Your task to perform on an android device: Go to accessibility settings Image 0: 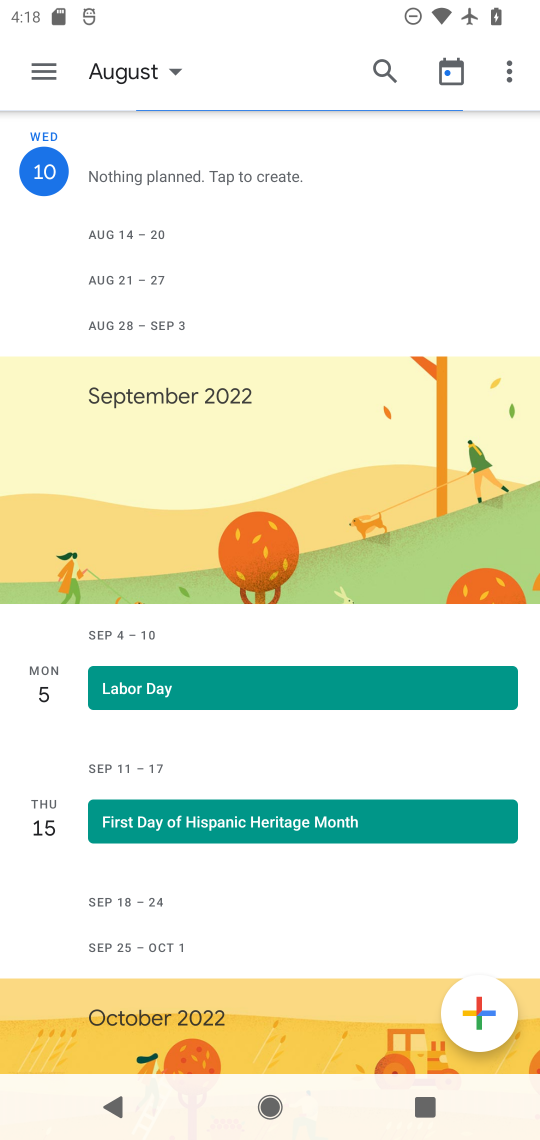
Step 0: press home button
Your task to perform on an android device: Go to accessibility settings Image 1: 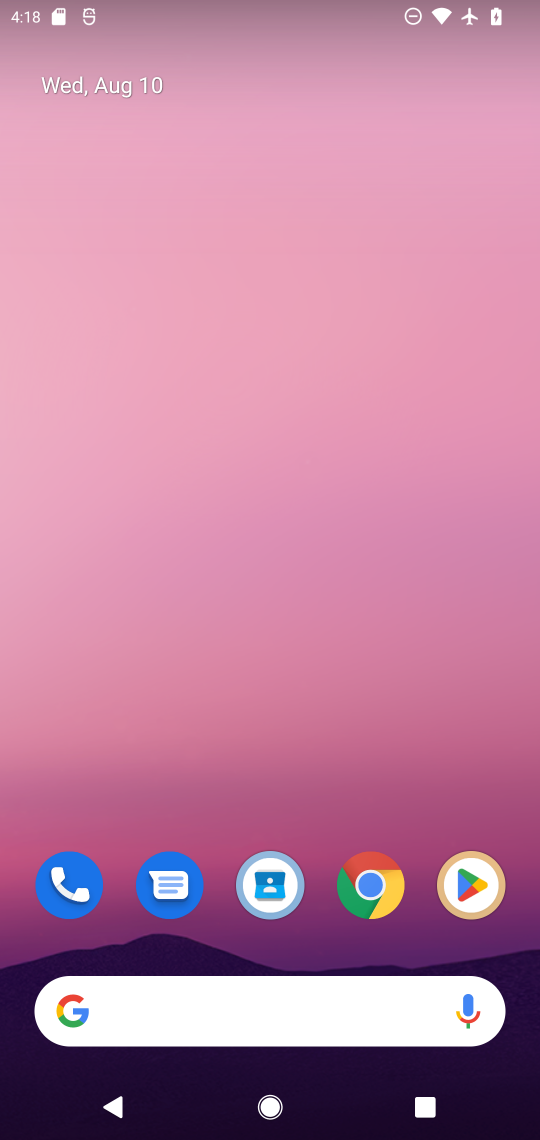
Step 1: drag from (308, 943) to (270, 272)
Your task to perform on an android device: Go to accessibility settings Image 2: 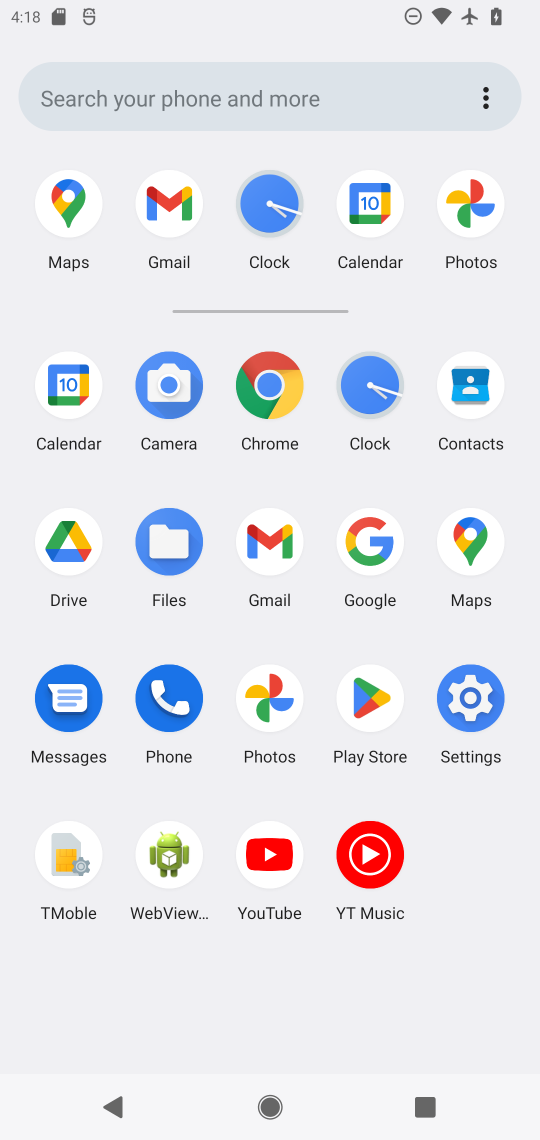
Step 2: click (473, 700)
Your task to perform on an android device: Go to accessibility settings Image 3: 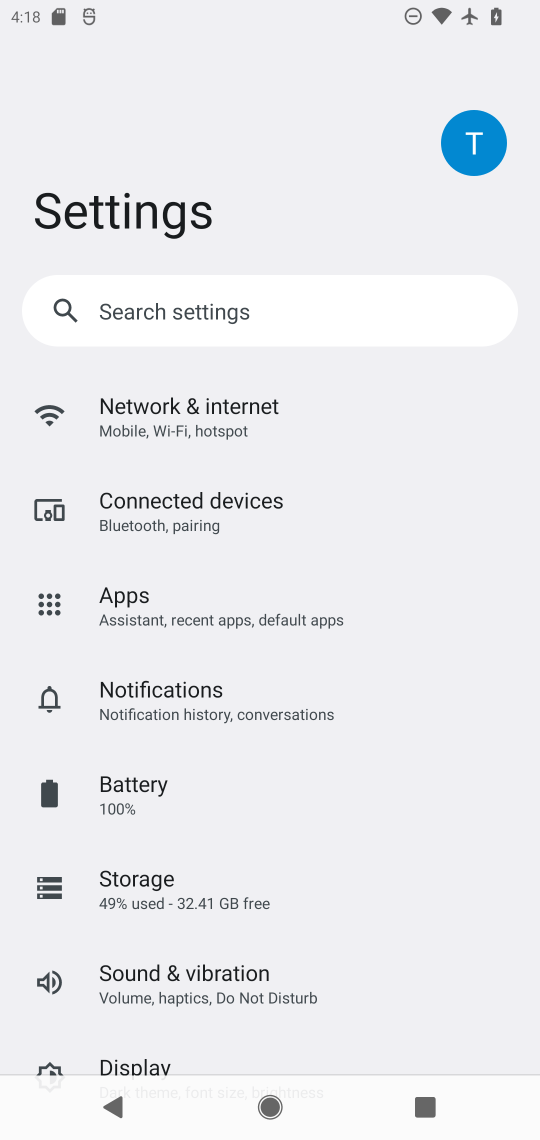
Step 3: drag from (361, 993) to (328, 384)
Your task to perform on an android device: Go to accessibility settings Image 4: 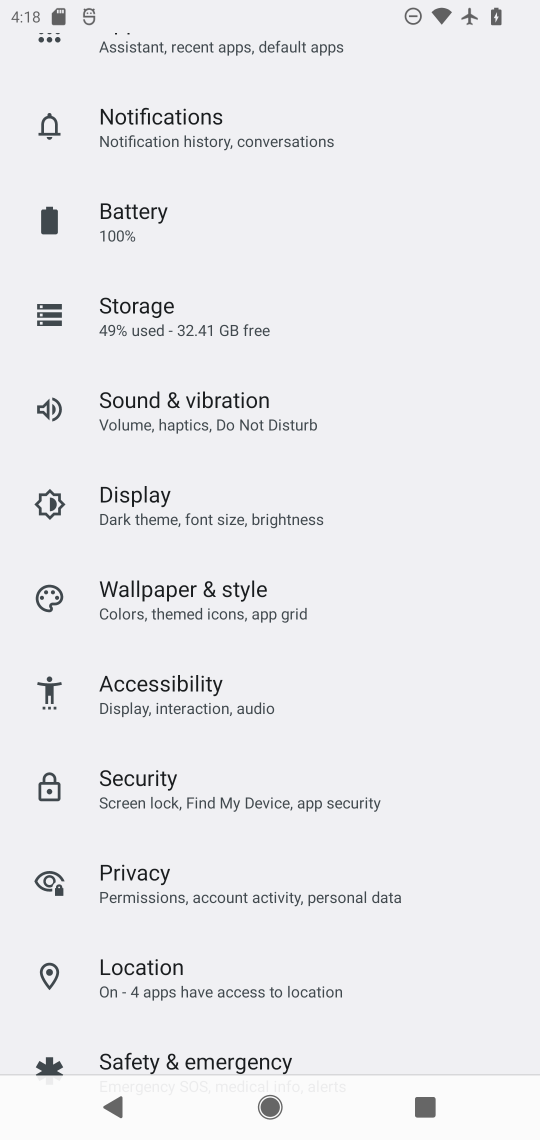
Step 4: click (171, 675)
Your task to perform on an android device: Go to accessibility settings Image 5: 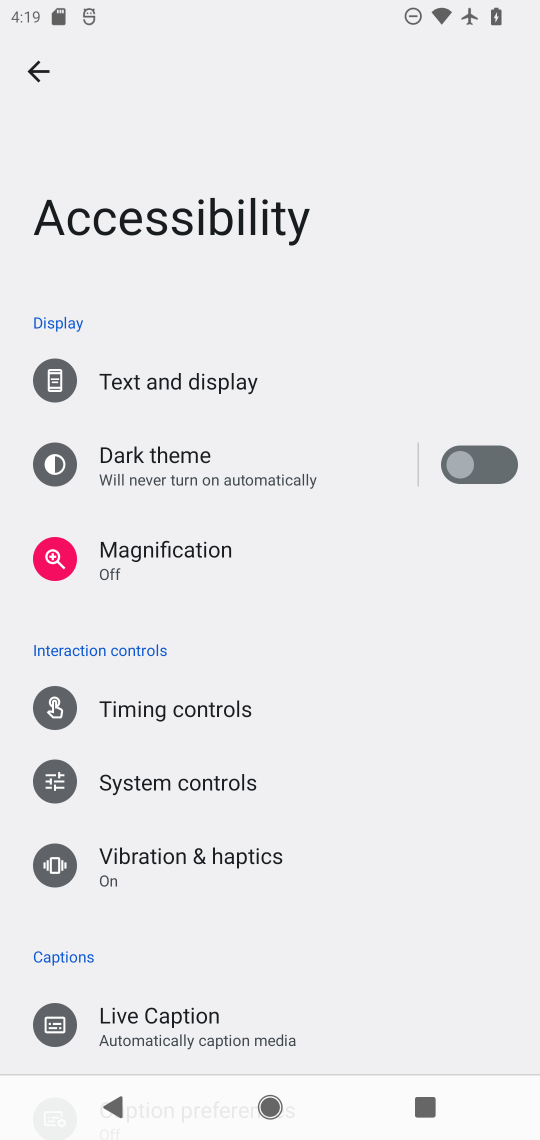
Step 5: task complete